Your task to perform on an android device: Search for vegetarian restaurants on Maps Image 0: 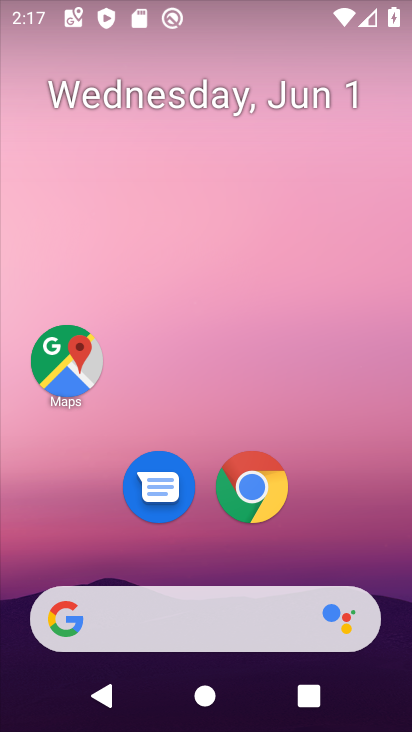
Step 0: drag from (377, 554) to (373, 204)
Your task to perform on an android device: Search for vegetarian restaurants on Maps Image 1: 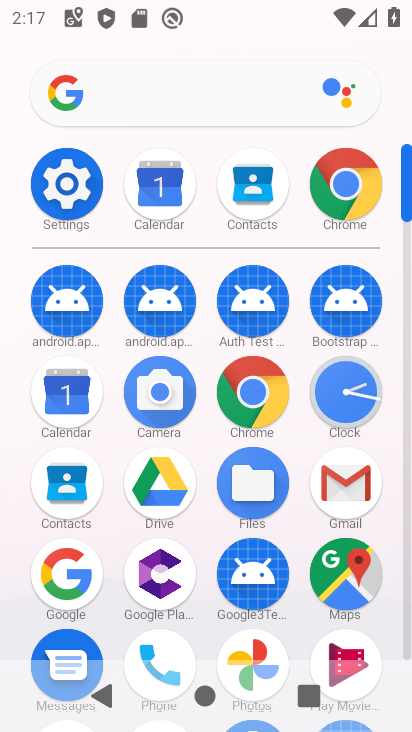
Step 1: drag from (296, 590) to (296, 300)
Your task to perform on an android device: Search for vegetarian restaurants on Maps Image 2: 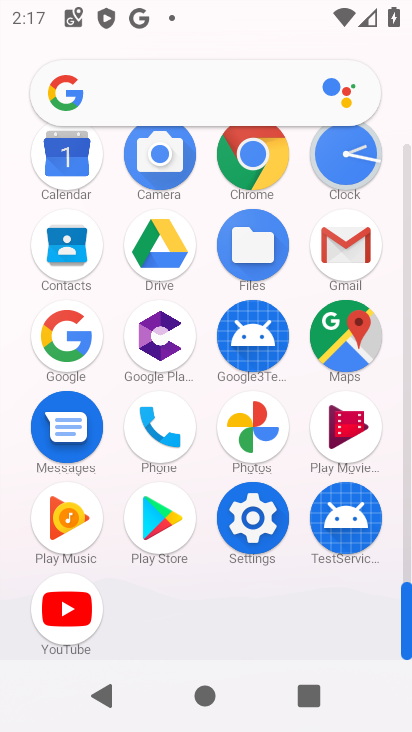
Step 2: click (337, 357)
Your task to perform on an android device: Search for vegetarian restaurants on Maps Image 3: 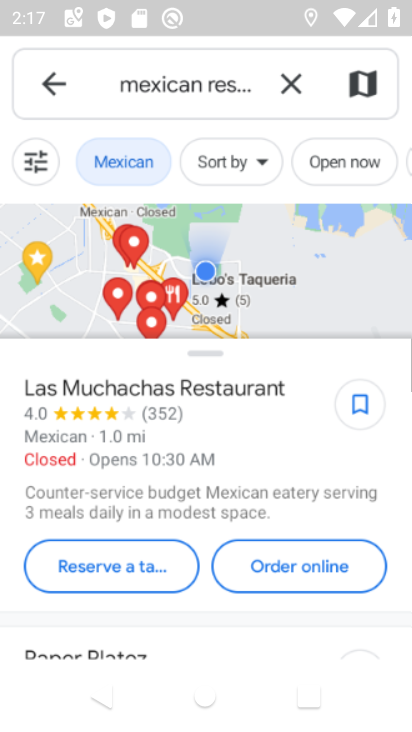
Step 3: click (292, 96)
Your task to perform on an android device: Search for vegetarian restaurants on Maps Image 4: 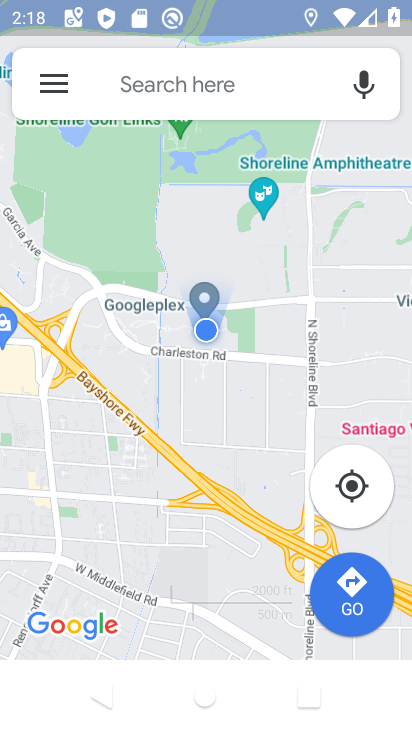
Step 4: click (247, 98)
Your task to perform on an android device: Search for vegetarian restaurants on Maps Image 5: 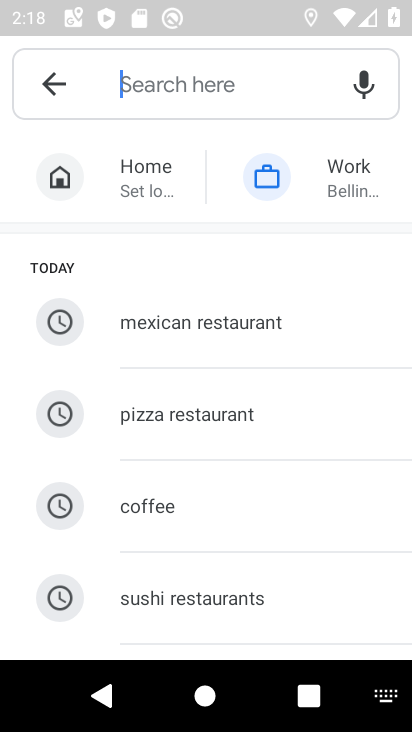
Step 5: type "vegetrain restaurants"
Your task to perform on an android device: Search for vegetarian restaurants on Maps Image 6: 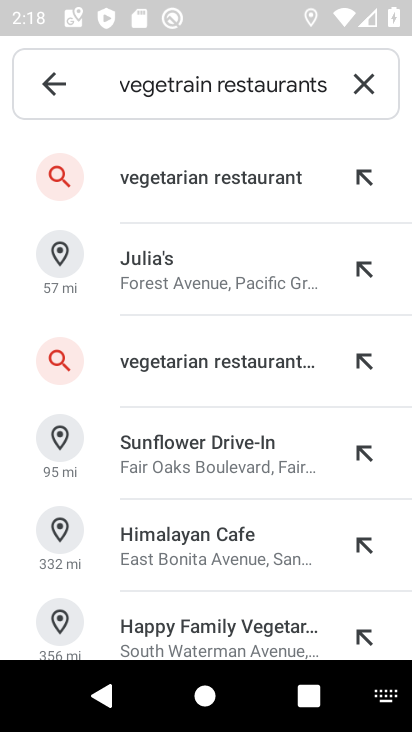
Step 6: click (244, 182)
Your task to perform on an android device: Search for vegetarian restaurants on Maps Image 7: 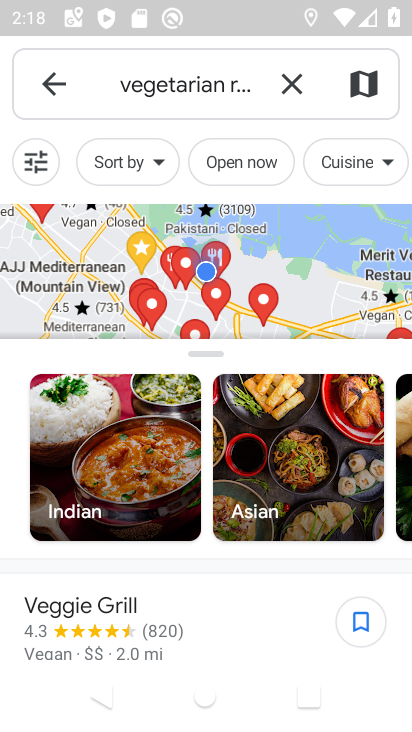
Step 7: task complete